Your task to perform on an android device: Go to network settings Image 0: 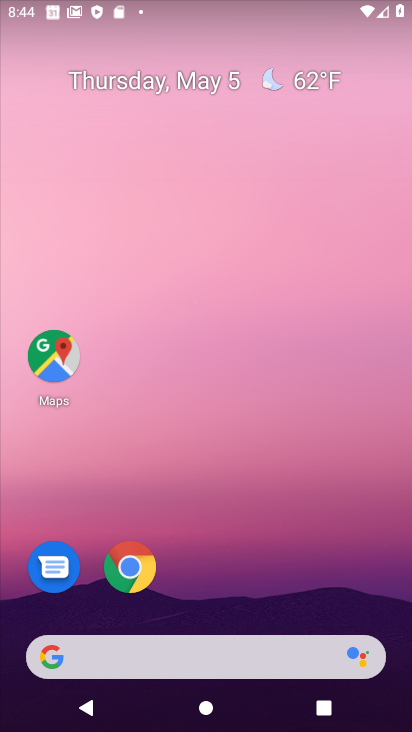
Step 0: drag from (221, 730) to (205, 223)
Your task to perform on an android device: Go to network settings Image 1: 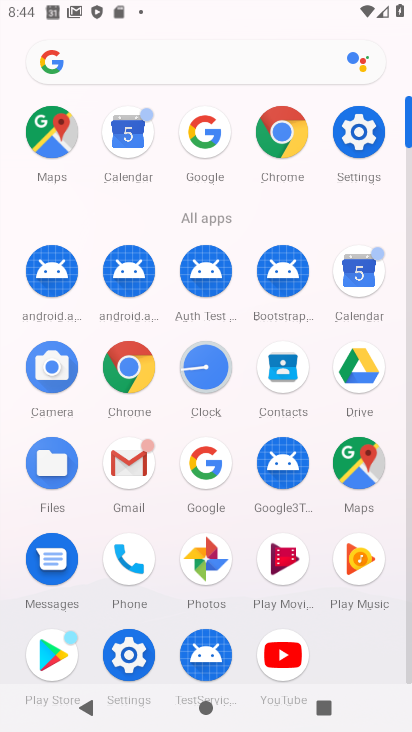
Step 1: click (363, 133)
Your task to perform on an android device: Go to network settings Image 2: 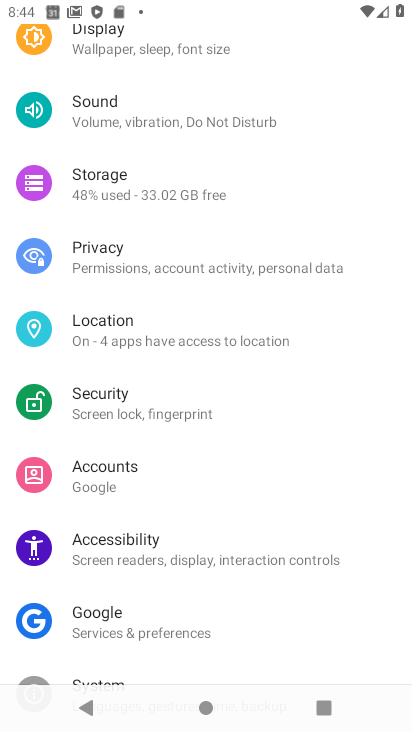
Step 2: drag from (182, 59) to (183, 442)
Your task to perform on an android device: Go to network settings Image 3: 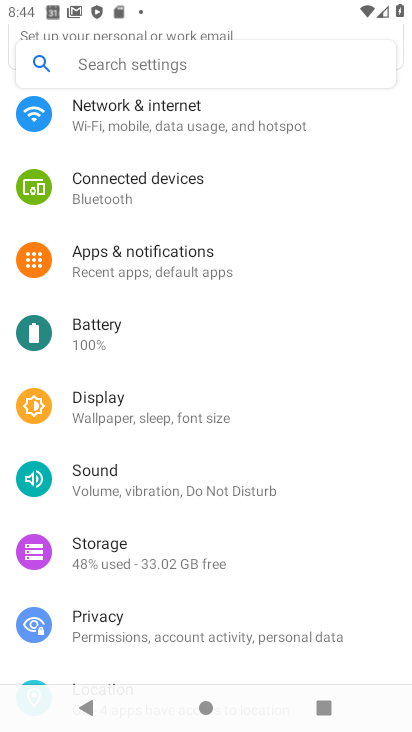
Step 3: drag from (180, 119) to (178, 402)
Your task to perform on an android device: Go to network settings Image 4: 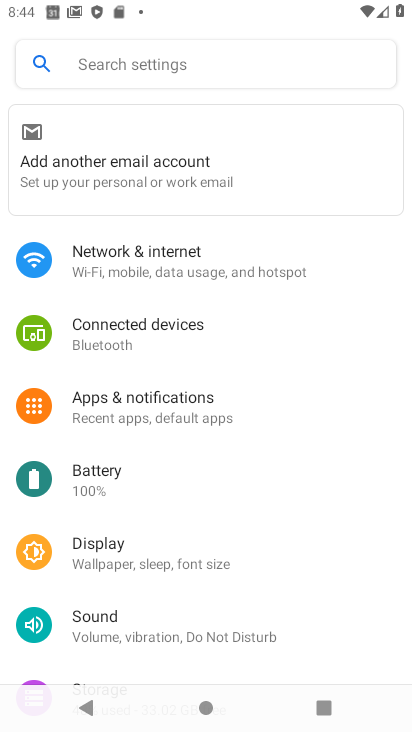
Step 4: click (126, 274)
Your task to perform on an android device: Go to network settings Image 5: 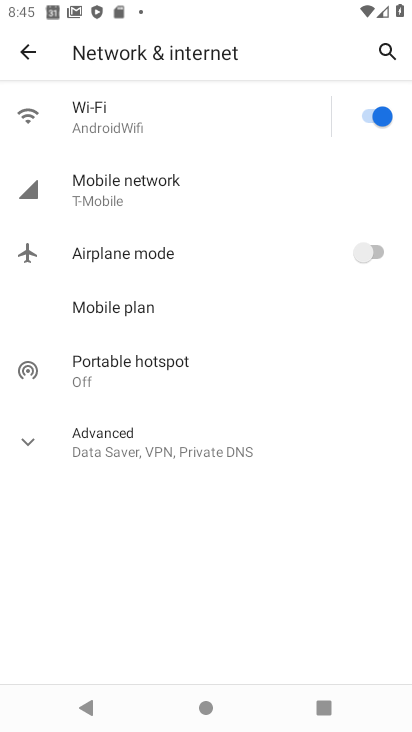
Step 5: click (91, 178)
Your task to perform on an android device: Go to network settings Image 6: 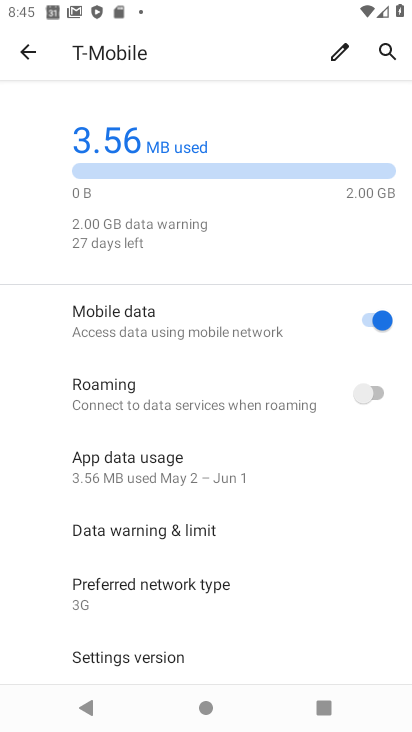
Step 6: task complete